Your task to perform on an android device: read, delete, or share a saved page in the chrome app Image 0: 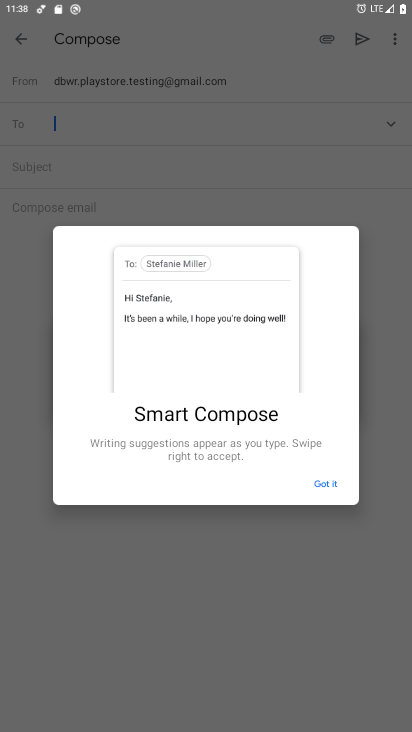
Step 0: press home button
Your task to perform on an android device: read, delete, or share a saved page in the chrome app Image 1: 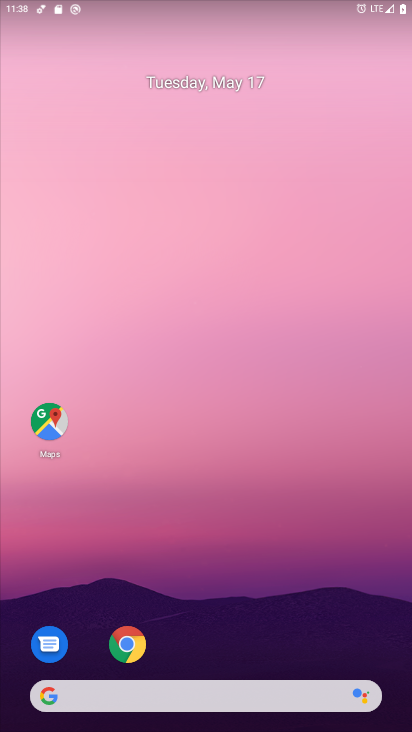
Step 1: click (124, 644)
Your task to perform on an android device: read, delete, or share a saved page in the chrome app Image 2: 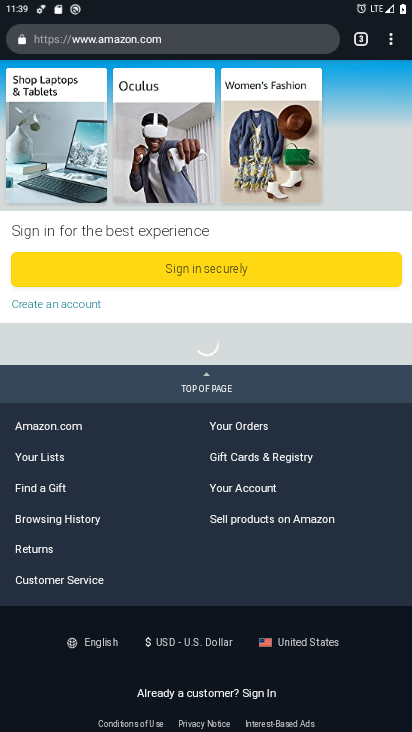
Step 2: click (391, 40)
Your task to perform on an android device: read, delete, or share a saved page in the chrome app Image 3: 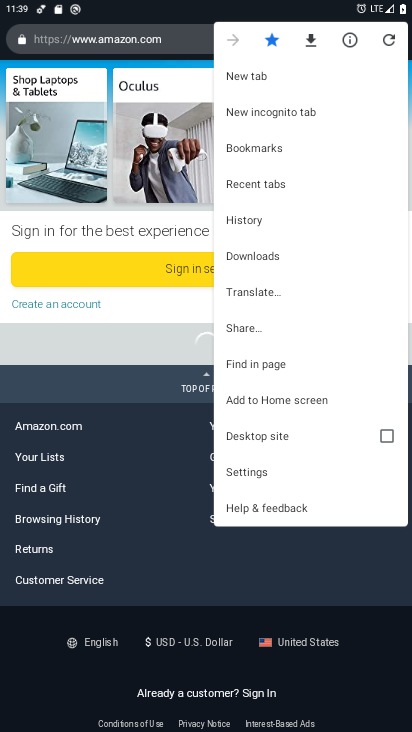
Step 3: click (286, 252)
Your task to perform on an android device: read, delete, or share a saved page in the chrome app Image 4: 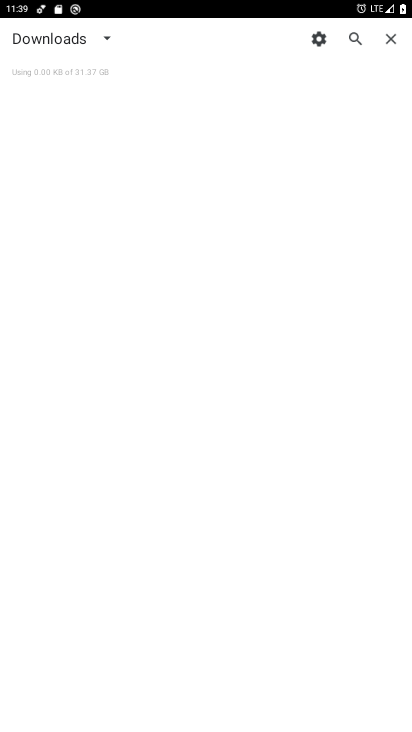
Step 4: task complete